Your task to perform on an android device: empty trash in google photos Image 0: 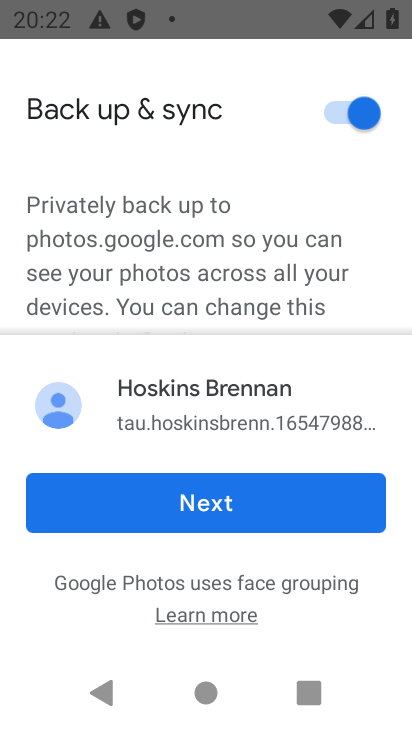
Step 0: press home button
Your task to perform on an android device: empty trash in google photos Image 1: 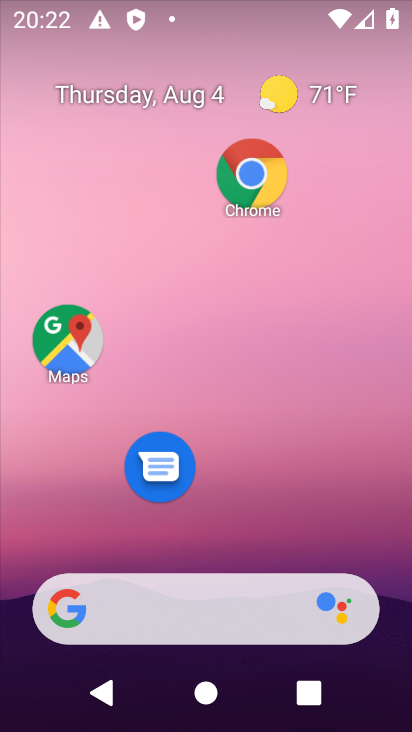
Step 1: drag from (315, 482) to (265, 1)
Your task to perform on an android device: empty trash in google photos Image 2: 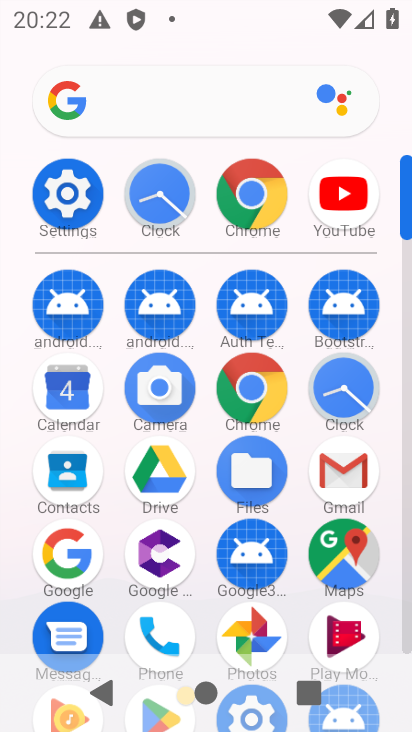
Step 2: drag from (208, 526) to (164, 113)
Your task to perform on an android device: empty trash in google photos Image 3: 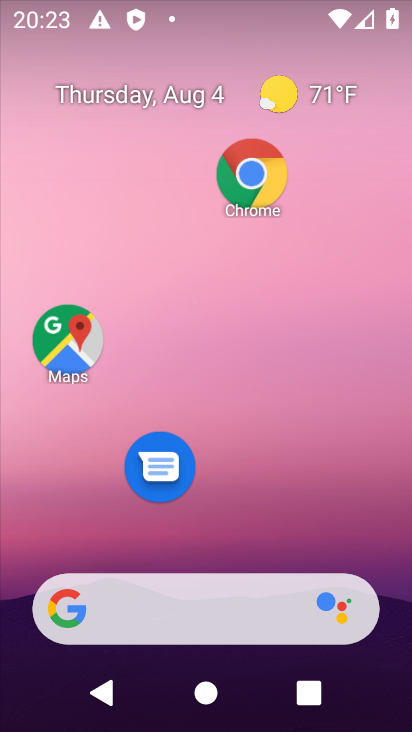
Step 3: drag from (248, 534) to (213, 29)
Your task to perform on an android device: empty trash in google photos Image 4: 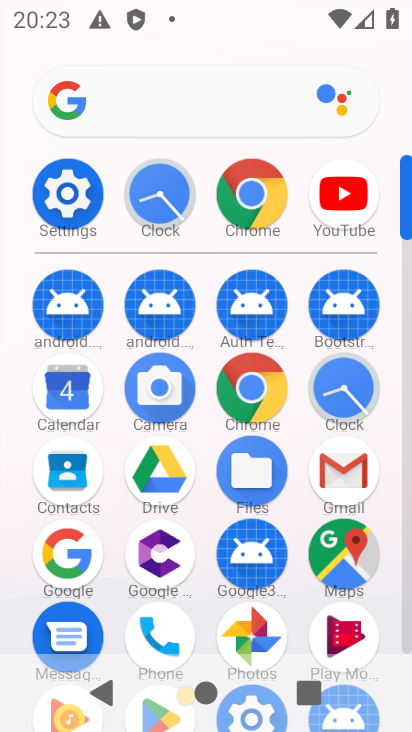
Step 4: drag from (194, 629) to (182, 184)
Your task to perform on an android device: empty trash in google photos Image 5: 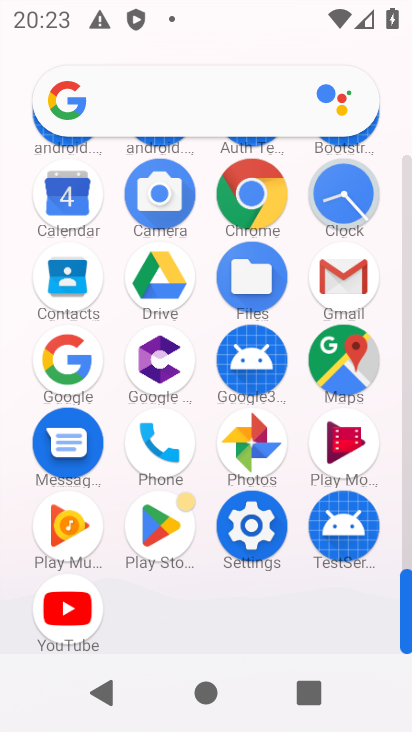
Step 5: click (247, 431)
Your task to perform on an android device: empty trash in google photos Image 6: 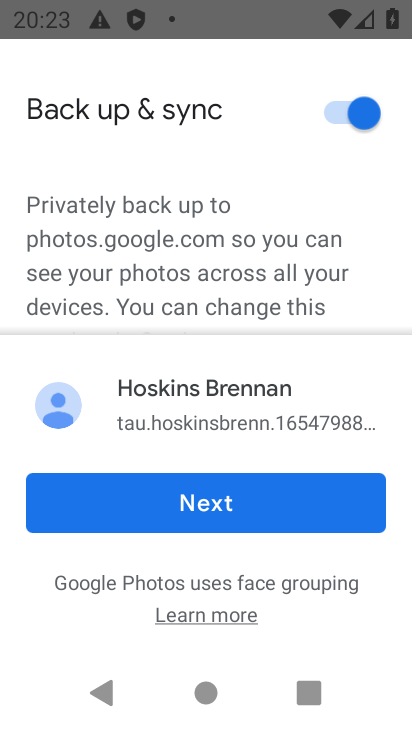
Step 6: click (232, 508)
Your task to perform on an android device: empty trash in google photos Image 7: 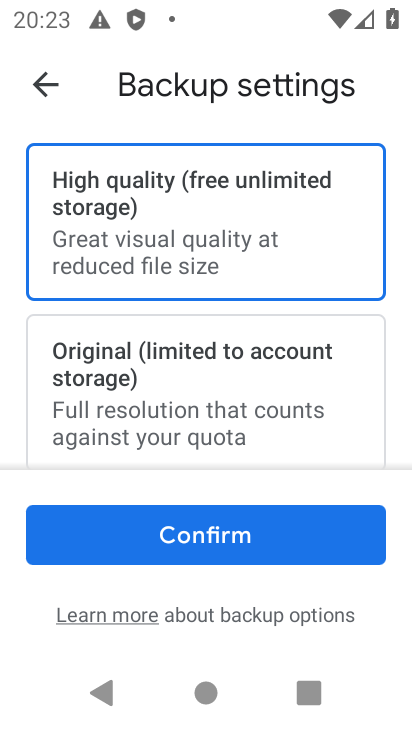
Step 7: click (49, 87)
Your task to perform on an android device: empty trash in google photos Image 8: 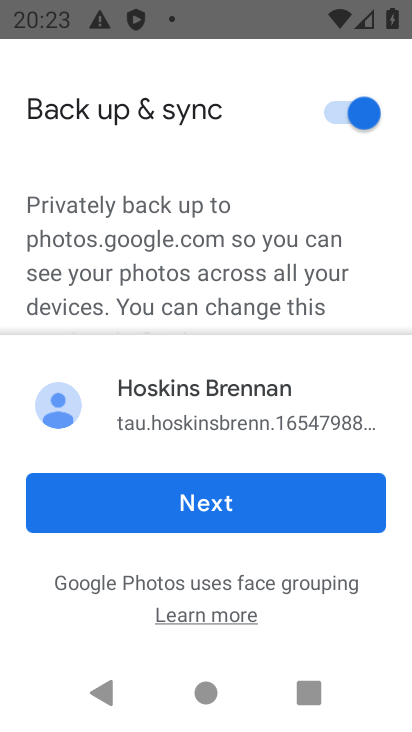
Step 8: click (184, 29)
Your task to perform on an android device: empty trash in google photos Image 9: 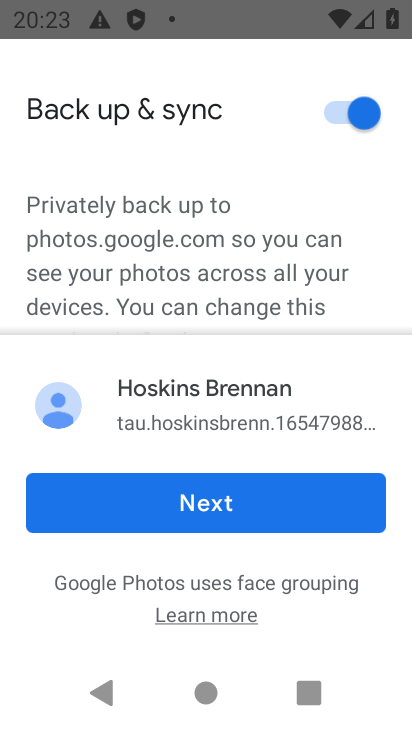
Step 9: drag from (247, 45) to (259, 725)
Your task to perform on an android device: empty trash in google photos Image 10: 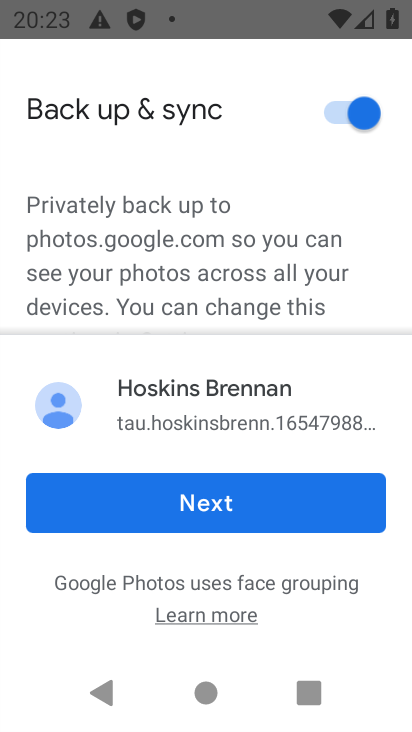
Step 10: click (263, 490)
Your task to perform on an android device: empty trash in google photos Image 11: 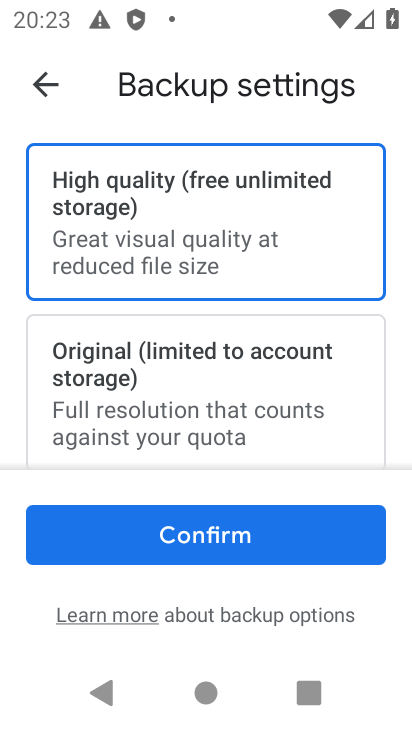
Step 11: click (299, 541)
Your task to perform on an android device: empty trash in google photos Image 12: 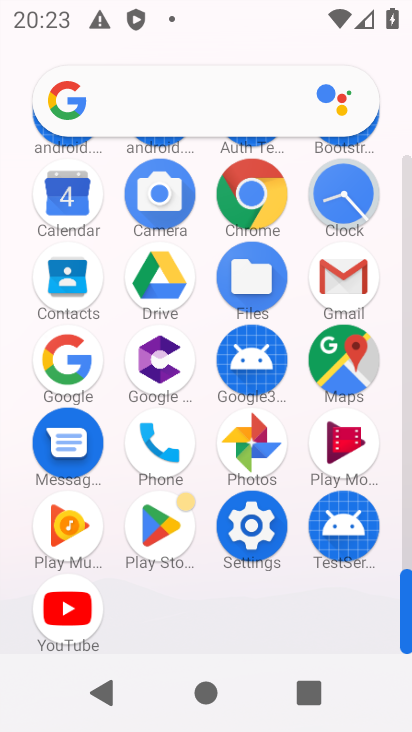
Step 12: click (240, 438)
Your task to perform on an android device: empty trash in google photos Image 13: 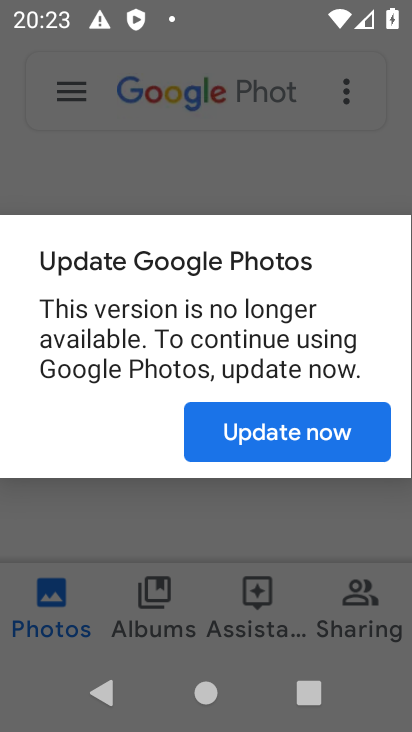
Step 13: click (74, 92)
Your task to perform on an android device: empty trash in google photos Image 14: 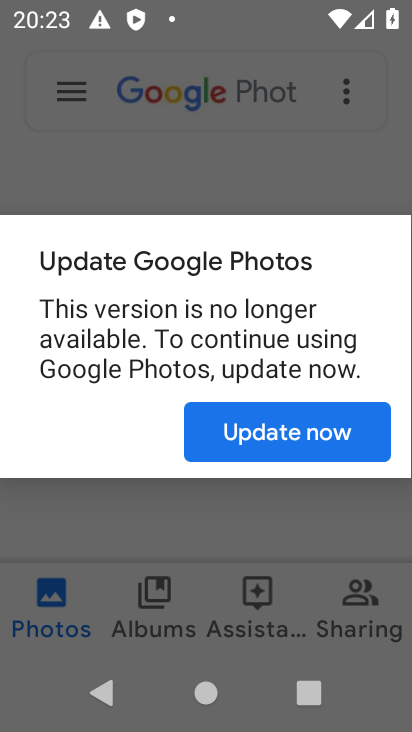
Step 14: click (298, 442)
Your task to perform on an android device: empty trash in google photos Image 15: 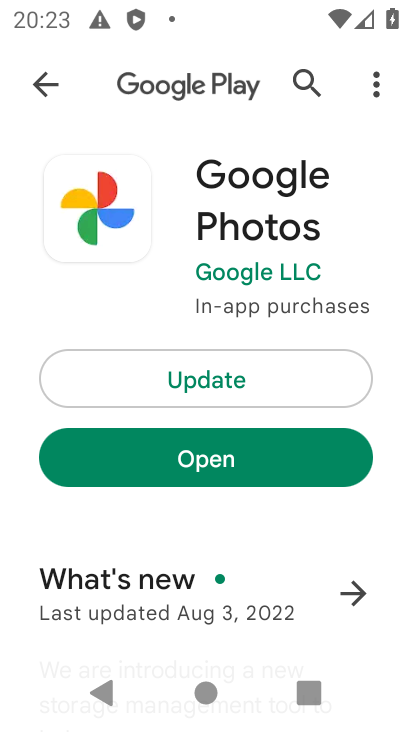
Step 15: click (205, 377)
Your task to perform on an android device: empty trash in google photos Image 16: 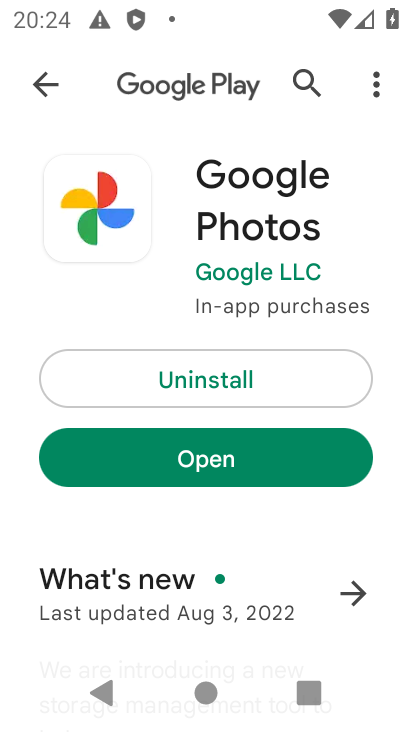
Step 16: click (245, 451)
Your task to perform on an android device: empty trash in google photos Image 17: 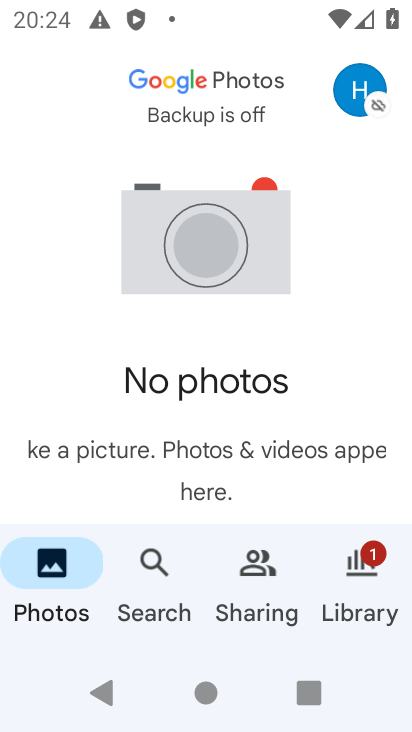
Step 17: click (347, 81)
Your task to perform on an android device: empty trash in google photos Image 18: 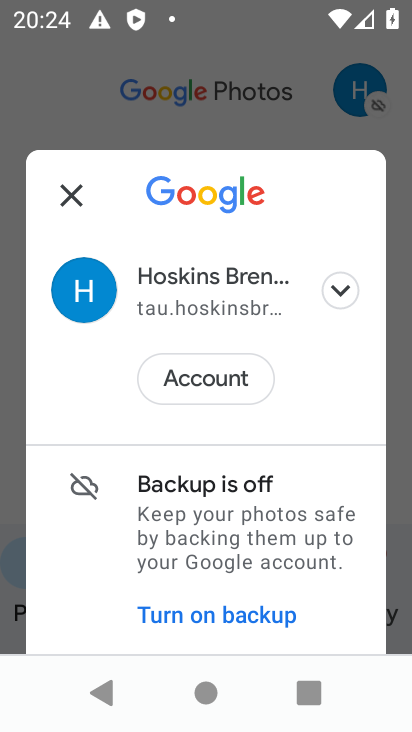
Step 18: drag from (276, 567) to (258, 177)
Your task to perform on an android device: empty trash in google photos Image 19: 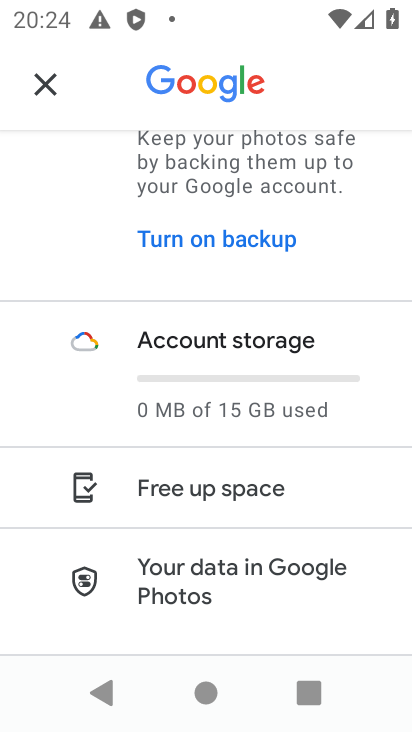
Step 19: drag from (131, 582) to (164, 228)
Your task to perform on an android device: empty trash in google photos Image 20: 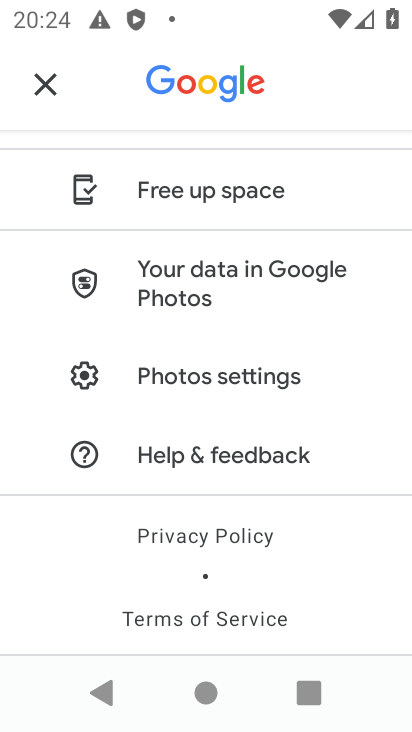
Step 20: drag from (251, 595) to (194, 195)
Your task to perform on an android device: empty trash in google photos Image 21: 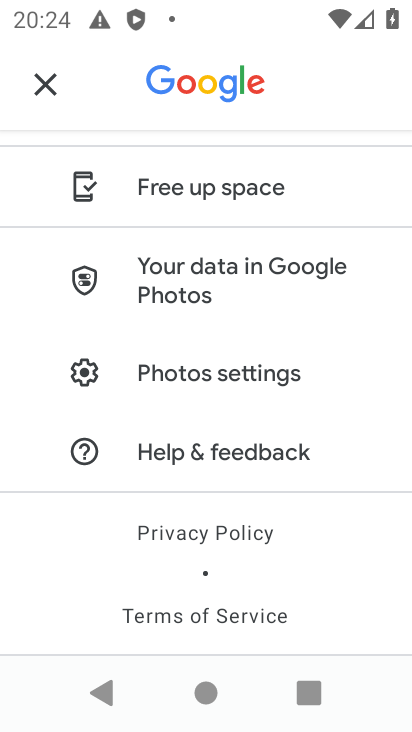
Step 21: drag from (197, 224) to (265, 631)
Your task to perform on an android device: empty trash in google photos Image 22: 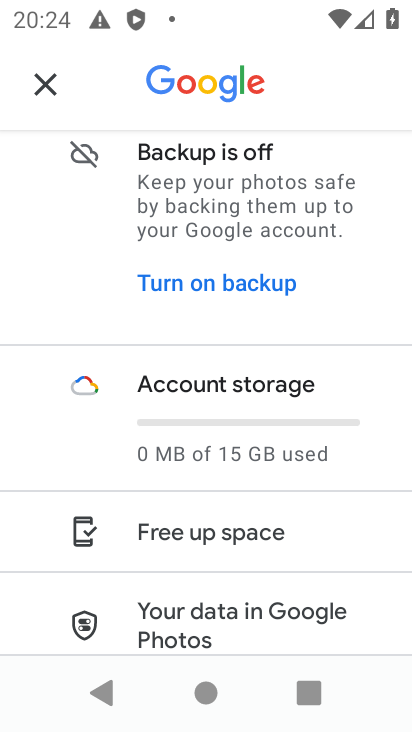
Step 22: drag from (257, 499) to (270, 124)
Your task to perform on an android device: empty trash in google photos Image 23: 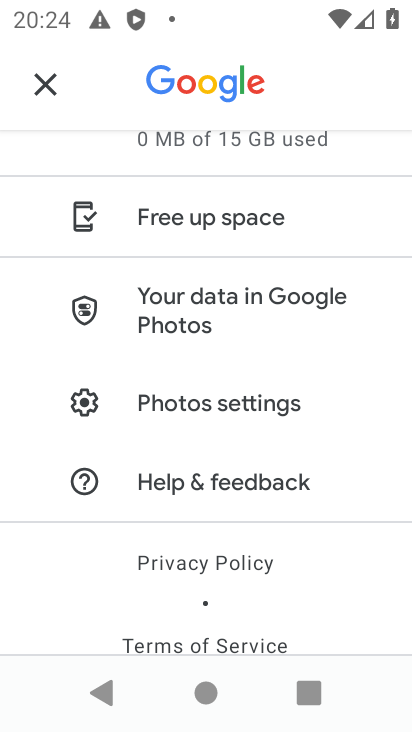
Step 23: click (222, 411)
Your task to perform on an android device: empty trash in google photos Image 24: 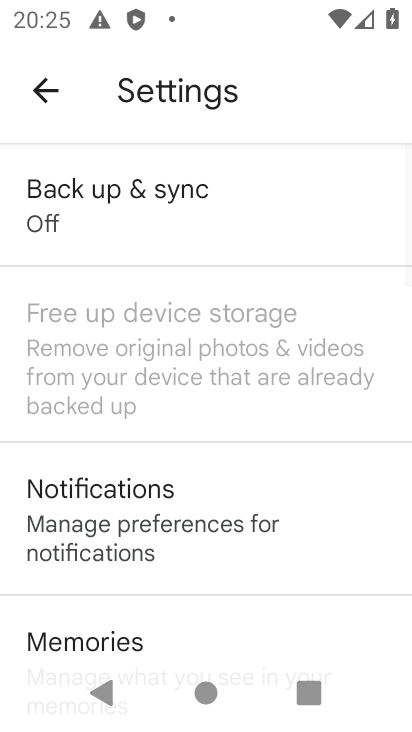
Step 24: drag from (301, 596) to (287, 192)
Your task to perform on an android device: empty trash in google photos Image 25: 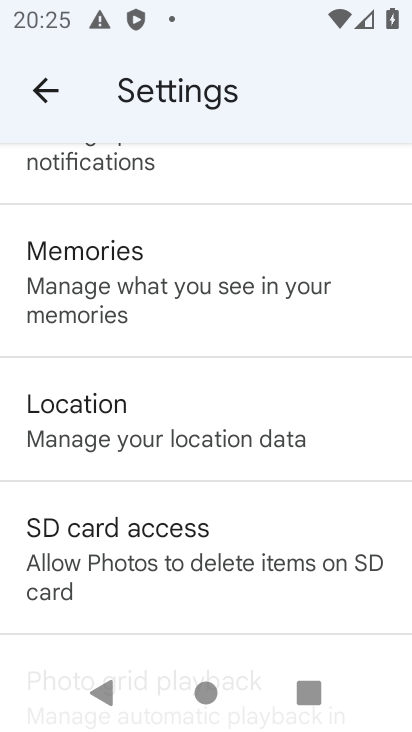
Step 25: drag from (310, 548) to (277, 186)
Your task to perform on an android device: empty trash in google photos Image 26: 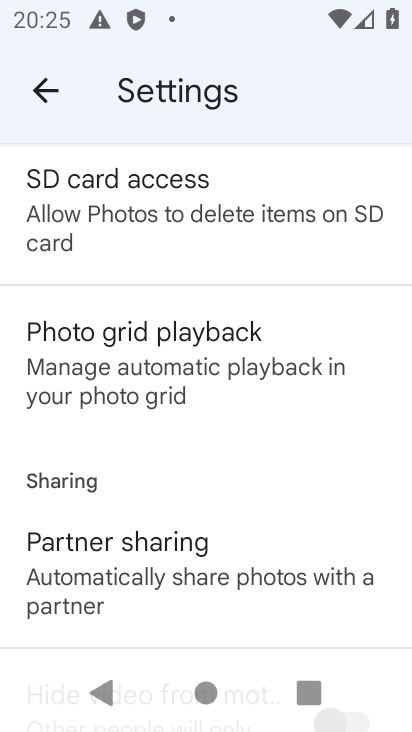
Step 26: drag from (242, 570) to (221, 190)
Your task to perform on an android device: empty trash in google photos Image 27: 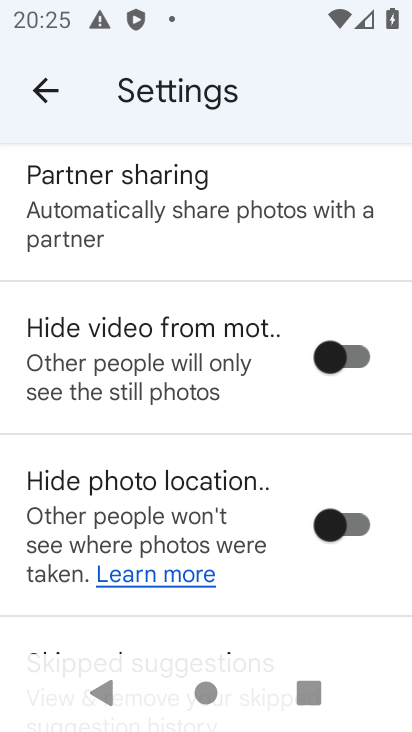
Step 27: drag from (222, 533) to (228, 165)
Your task to perform on an android device: empty trash in google photos Image 28: 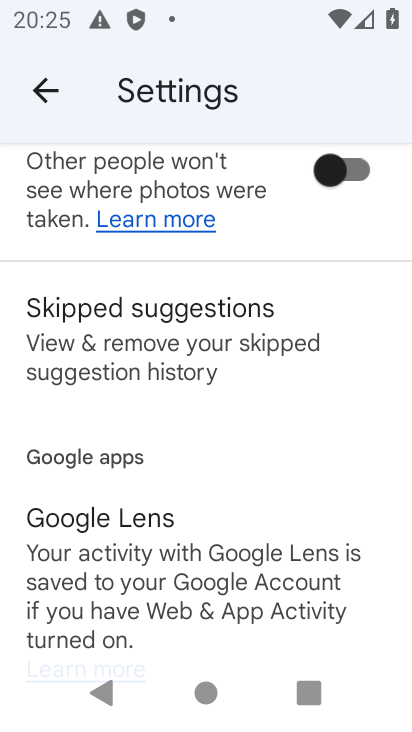
Step 28: drag from (231, 613) to (239, 194)
Your task to perform on an android device: empty trash in google photos Image 29: 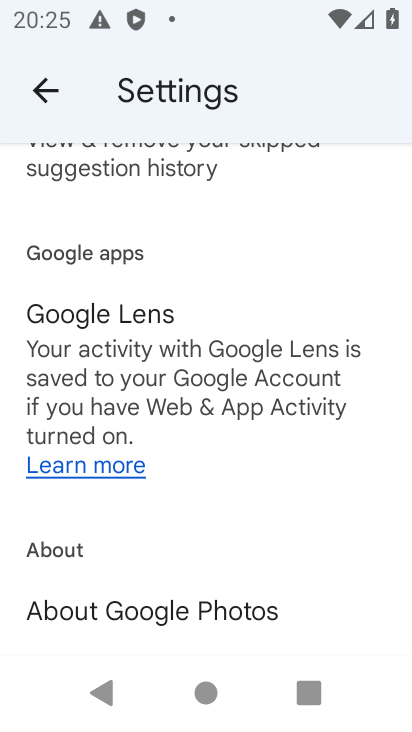
Step 29: drag from (220, 464) to (230, 126)
Your task to perform on an android device: empty trash in google photos Image 30: 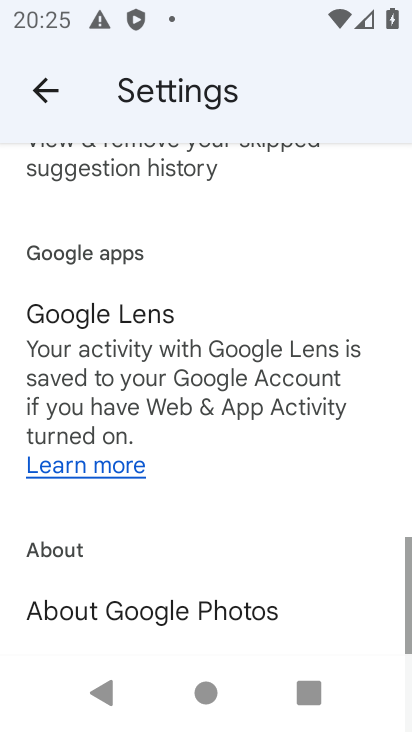
Step 30: drag from (205, 519) to (218, 238)
Your task to perform on an android device: empty trash in google photos Image 31: 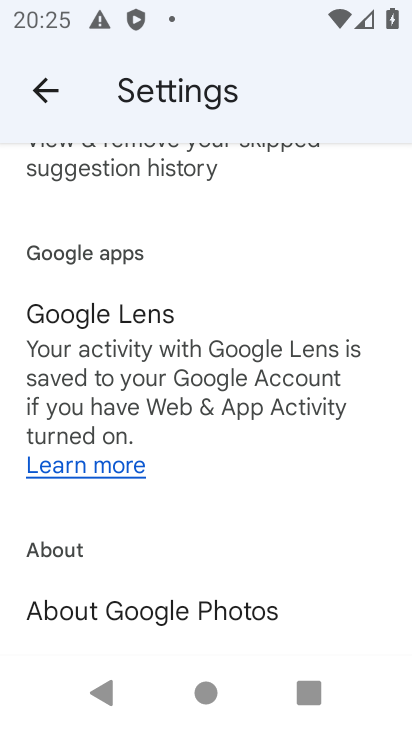
Step 31: click (58, 95)
Your task to perform on an android device: empty trash in google photos Image 32: 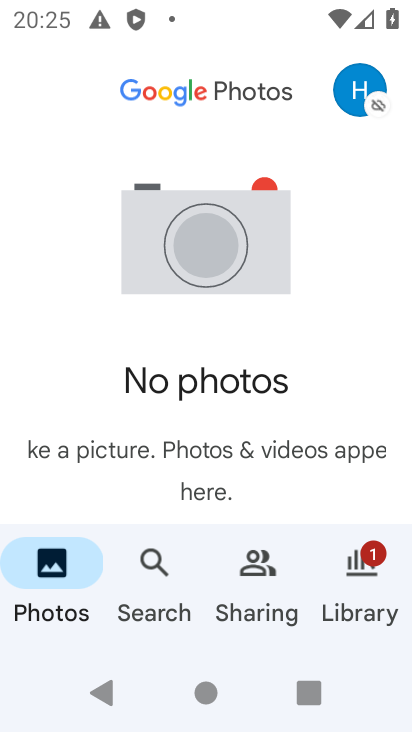
Step 32: click (360, 573)
Your task to perform on an android device: empty trash in google photos Image 33: 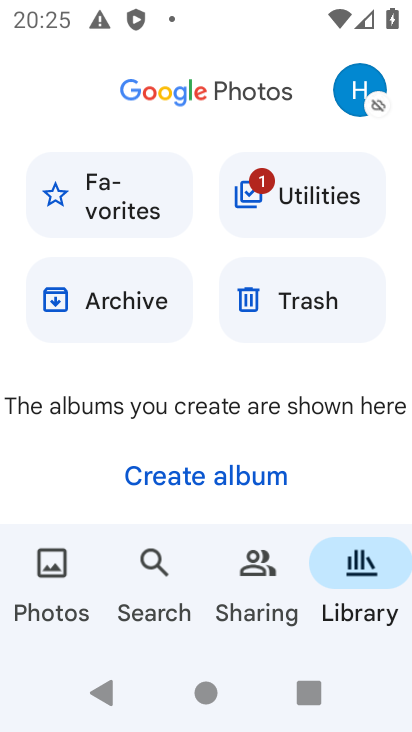
Step 33: click (290, 279)
Your task to perform on an android device: empty trash in google photos Image 34: 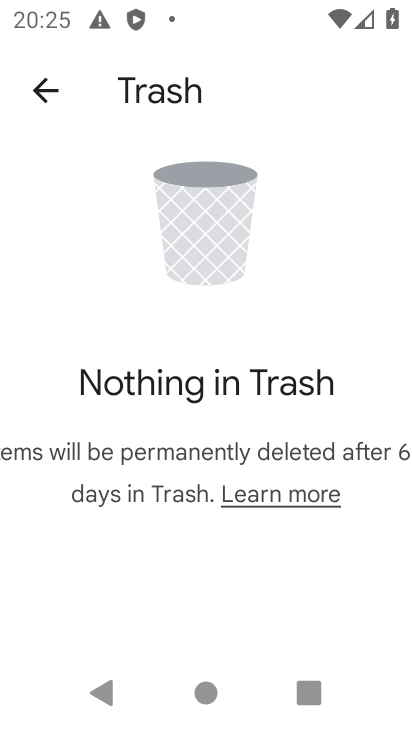
Step 34: task complete